Your task to perform on an android device: change the clock display to show seconds Image 0: 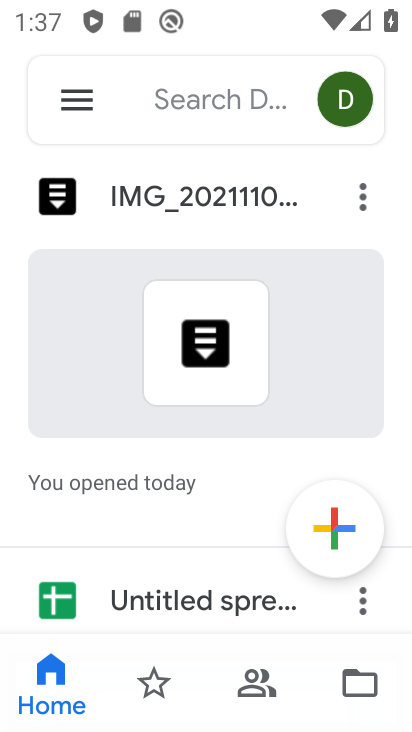
Step 0: press home button
Your task to perform on an android device: change the clock display to show seconds Image 1: 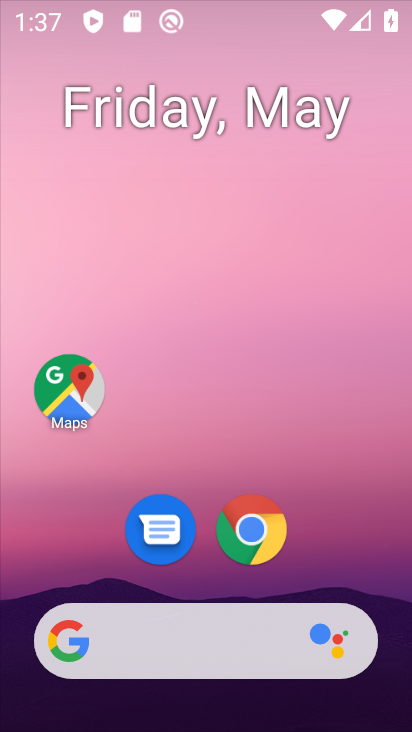
Step 1: drag from (332, 561) to (339, 47)
Your task to perform on an android device: change the clock display to show seconds Image 2: 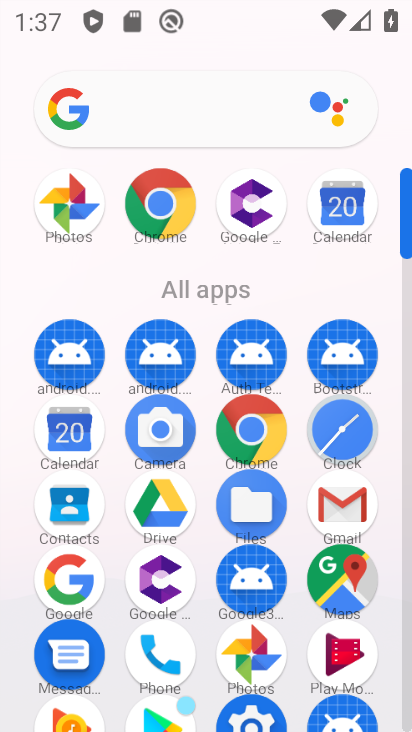
Step 2: click (346, 429)
Your task to perform on an android device: change the clock display to show seconds Image 3: 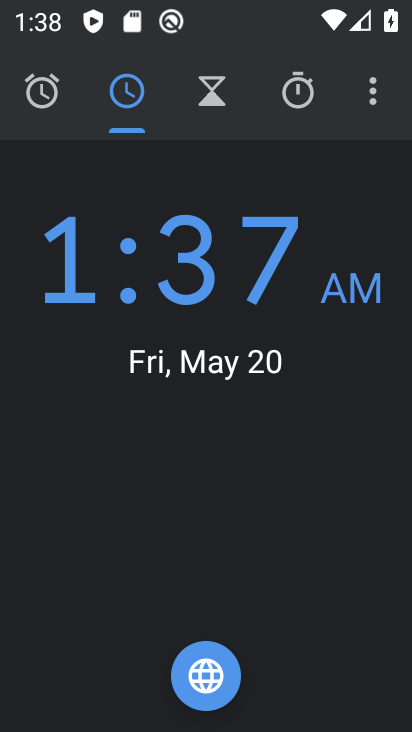
Step 3: click (366, 98)
Your task to perform on an android device: change the clock display to show seconds Image 4: 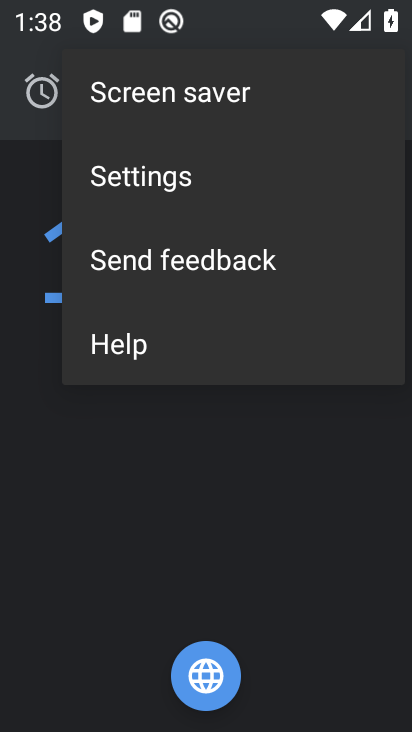
Step 4: click (161, 177)
Your task to perform on an android device: change the clock display to show seconds Image 5: 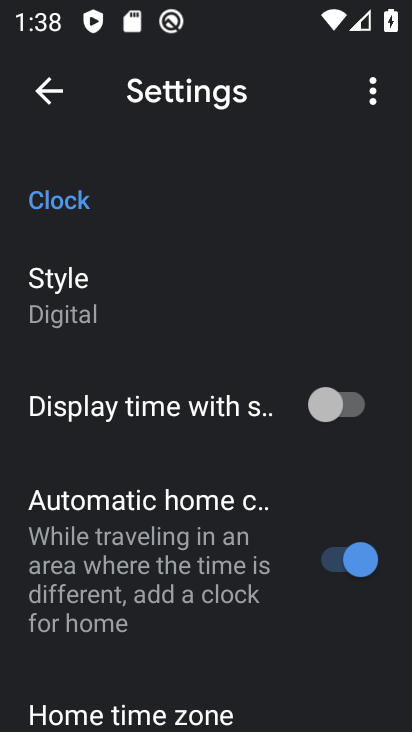
Step 5: click (321, 399)
Your task to perform on an android device: change the clock display to show seconds Image 6: 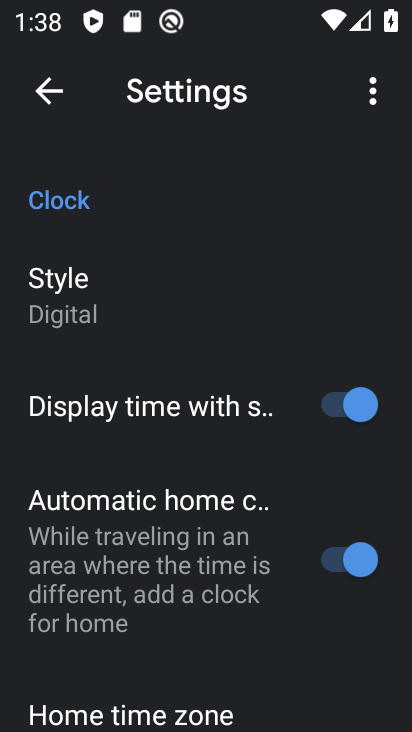
Step 6: task complete